Your task to perform on an android device: Open Wikipedia Image 0: 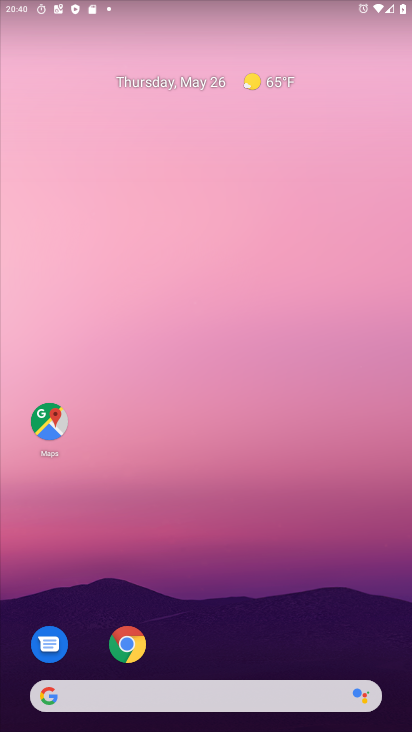
Step 0: drag from (192, 656) to (256, 173)
Your task to perform on an android device: Open Wikipedia Image 1: 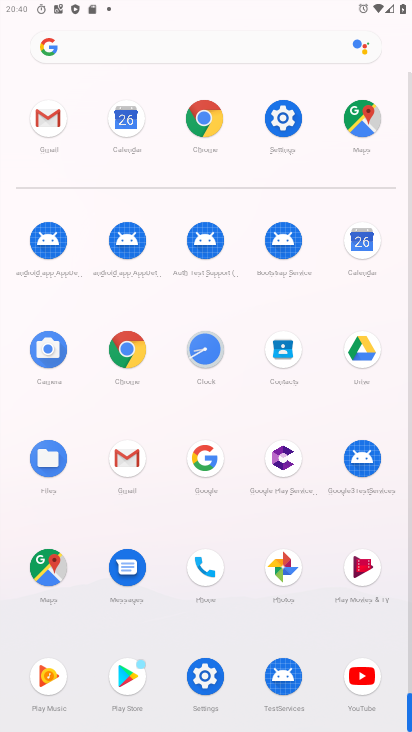
Step 1: click (156, 54)
Your task to perform on an android device: Open Wikipedia Image 2: 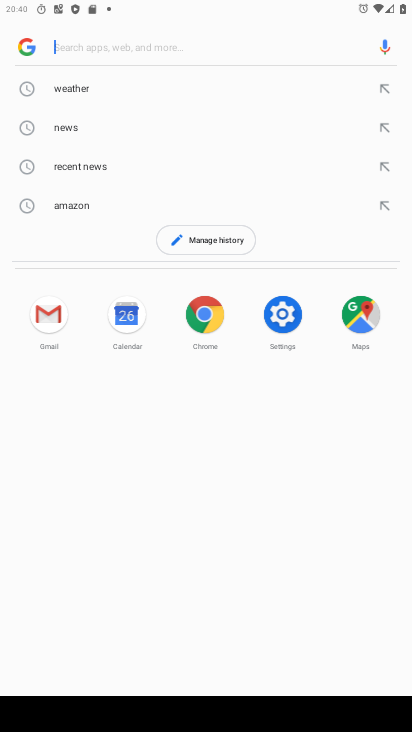
Step 2: type "wikipedia"
Your task to perform on an android device: Open Wikipedia Image 3: 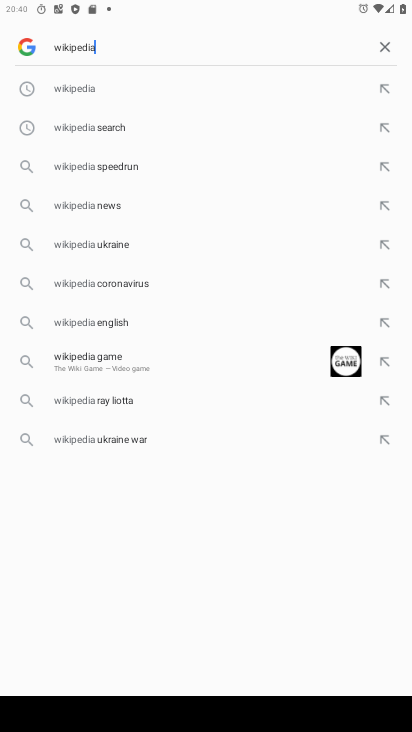
Step 3: click (133, 97)
Your task to perform on an android device: Open Wikipedia Image 4: 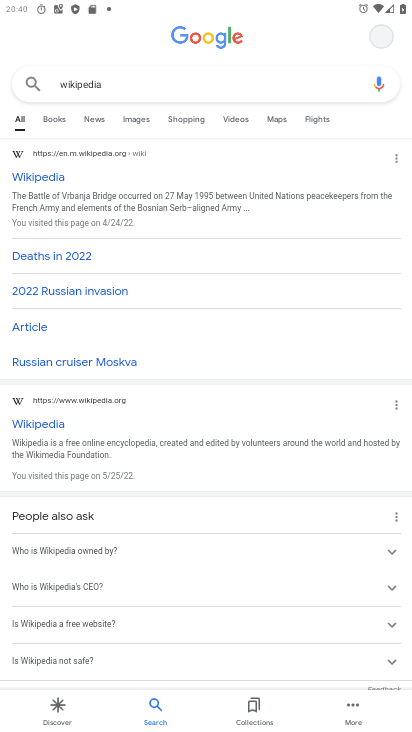
Step 4: drag from (290, 476) to (214, 215)
Your task to perform on an android device: Open Wikipedia Image 5: 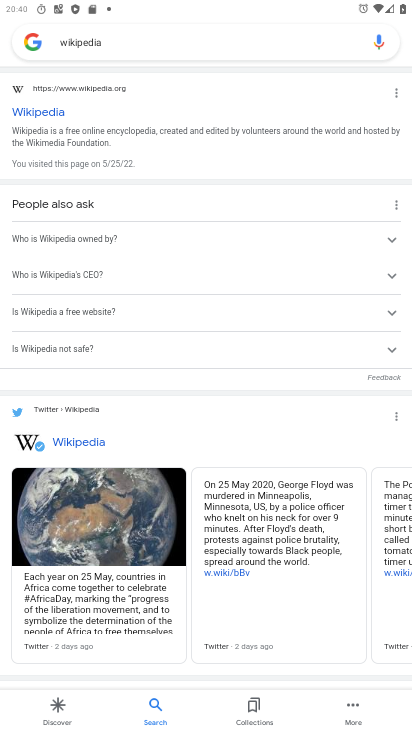
Step 5: drag from (188, 136) to (304, 713)
Your task to perform on an android device: Open Wikipedia Image 6: 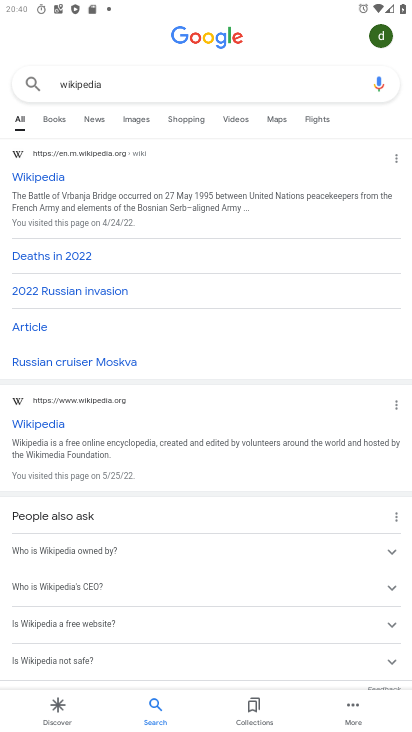
Step 6: click (37, 175)
Your task to perform on an android device: Open Wikipedia Image 7: 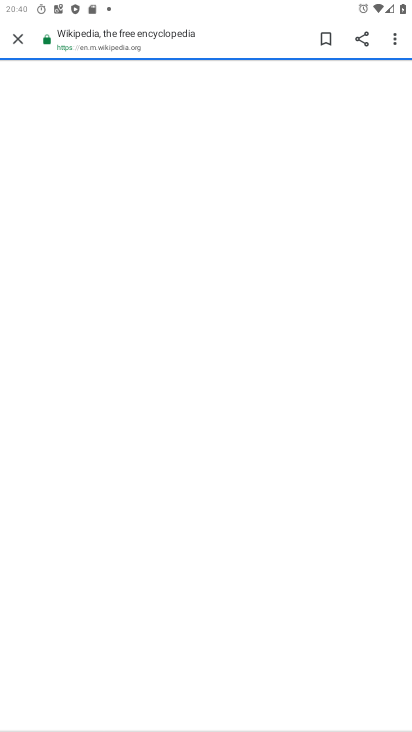
Step 7: task complete